Your task to perform on an android device: Go to sound settings Image 0: 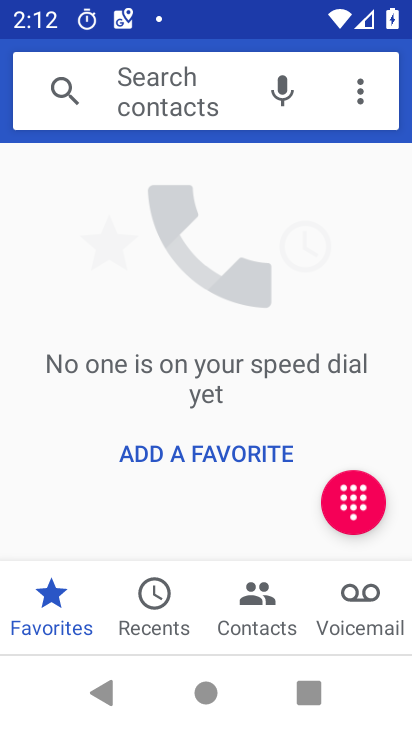
Step 0: press back button
Your task to perform on an android device: Go to sound settings Image 1: 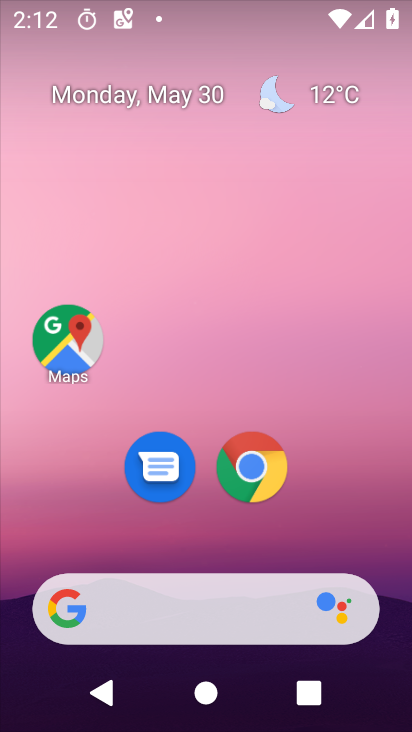
Step 1: drag from (397, 610) to (315, 103)
Your task to perform on an android device: Go to sound settings Image 2: 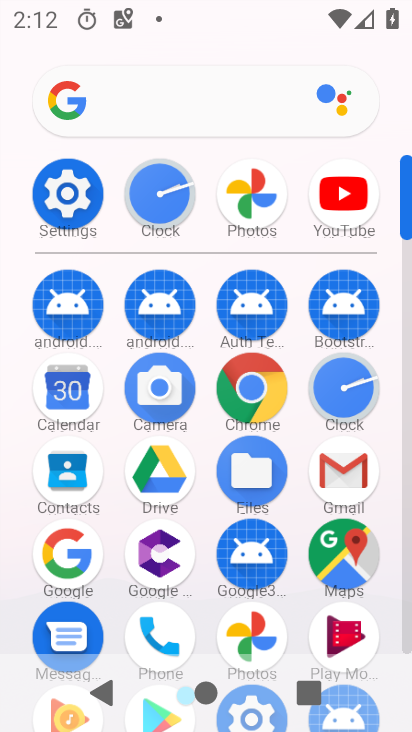
Step 2: click (62, 191)
Your task to perform on an android device: Go to sound settings Image 3: 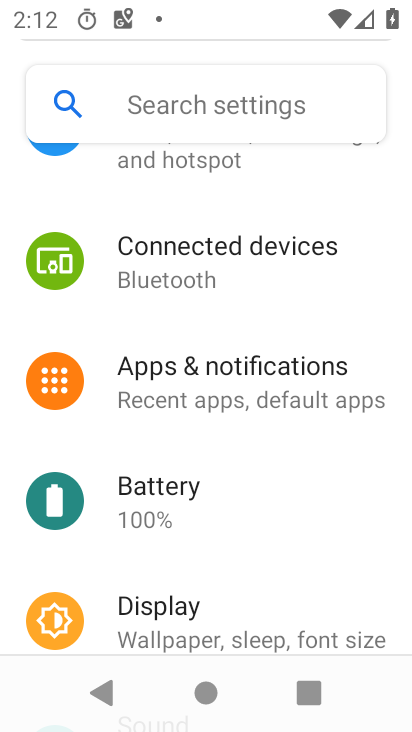
Step 3: drag from (269, 583) to (262, 299)
Your task to perform on an android device: Go to sound settings Image 4: 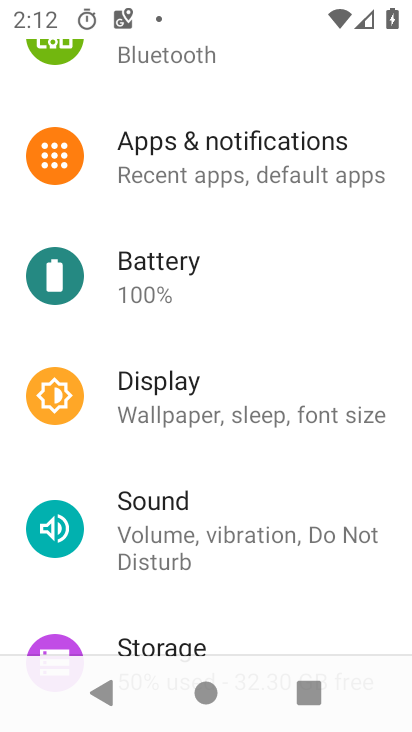
Step 4: click (149, 519)
Your task to perform on an android device: Go to sound settings Image 5: 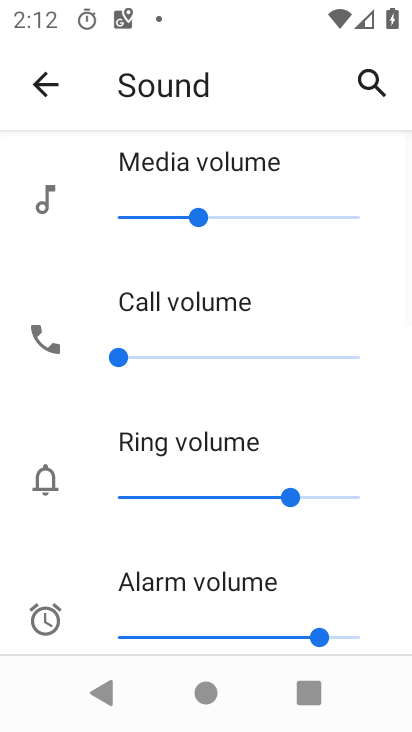
Step 5: task complete